Your task to perform on an android device: turn off notifications settings in the gmail app Image 0: 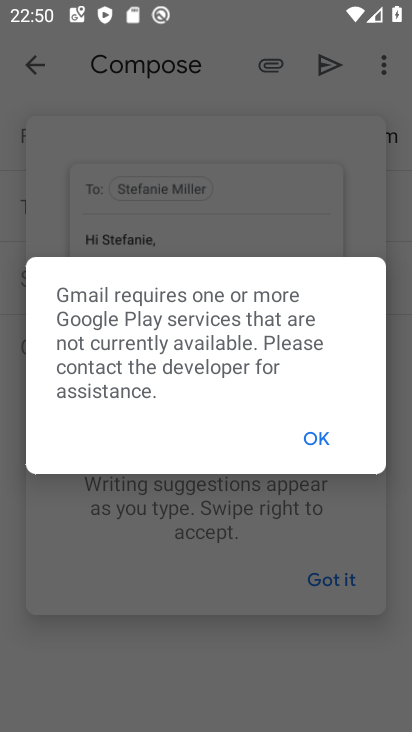
Step 0: press home button
Your task to perform on an android device: turn off notifications settings in the gmail app Image 1: 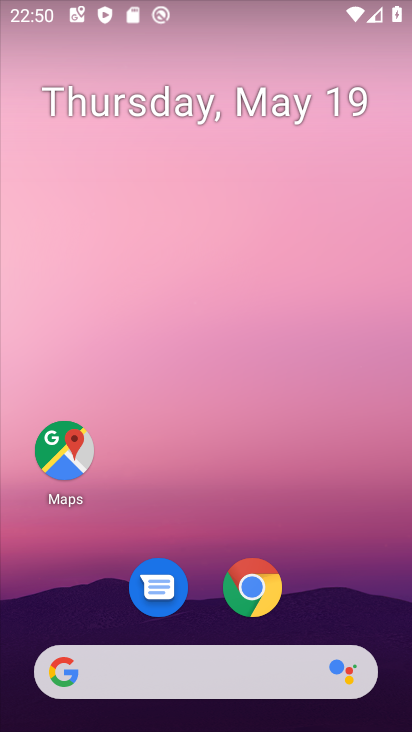
Step 1: drag from (184, 717) to (129, 125)
Your task to perform on an android device: turn off notifications settings in the gmail app Image 2: 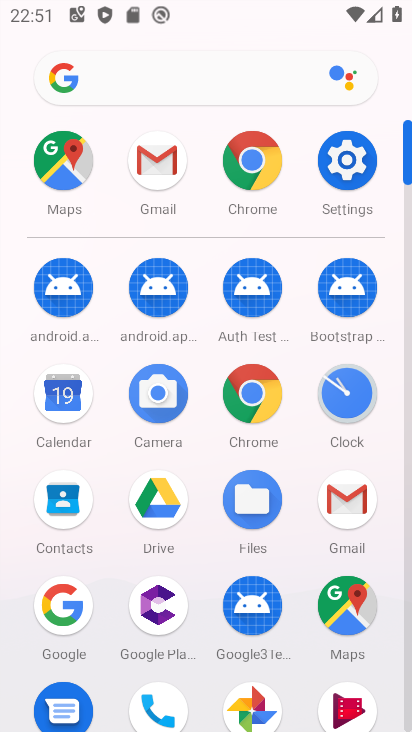
Step 2: click (162, 181)
Your task to perform on an android device: turn off notifications settings in the gmail app Image 3: 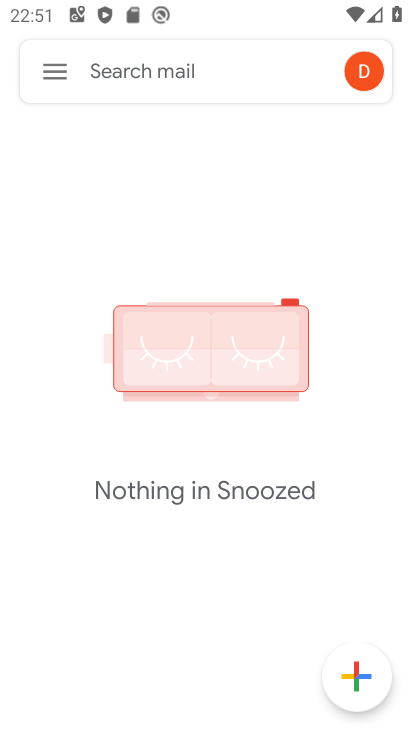
Step 3: click (57, 77)
Your task to perform on an android device: turn off notifications settings in the gmail app Image 4: 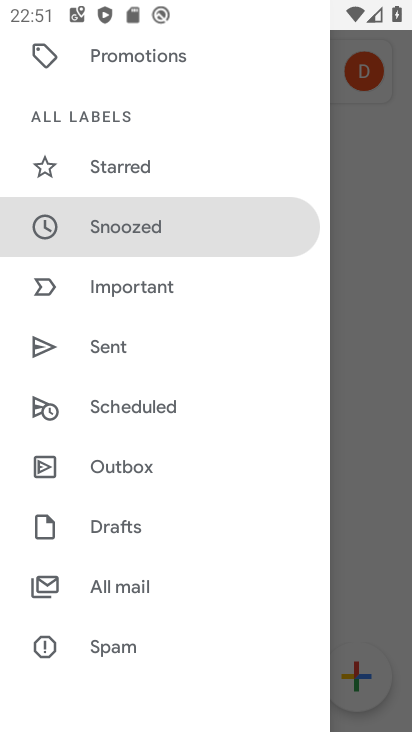
Step 4: drag from (108, 573) to (142, 299)
Your task to perform on an android device: turn off notifications settings in the gmail app Image 5: 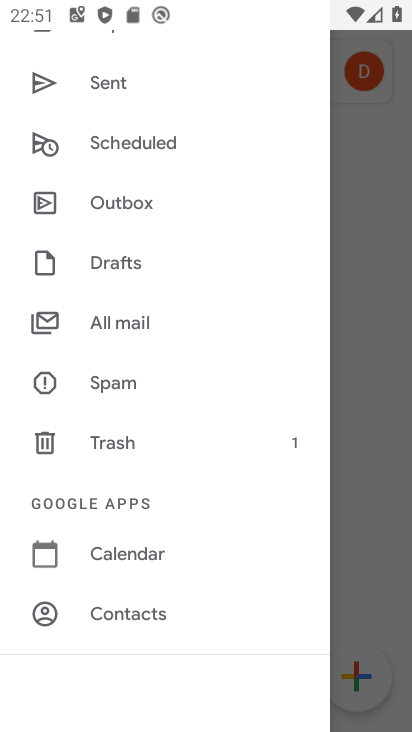
Step 5: drag from (110, 592) to (142, 440)
Your task to perform on an android device: turn off notifications settings in the gmail app Image 6: 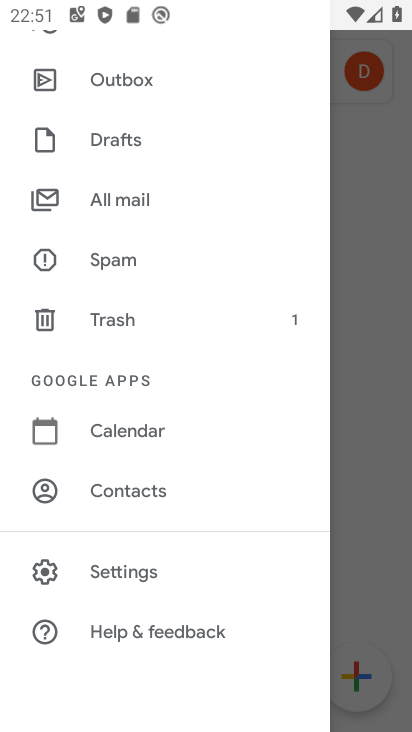
Step 6: click (98, 569)
Your task to perform on an android device: turn off notifications settings in the gmail app Image 7: 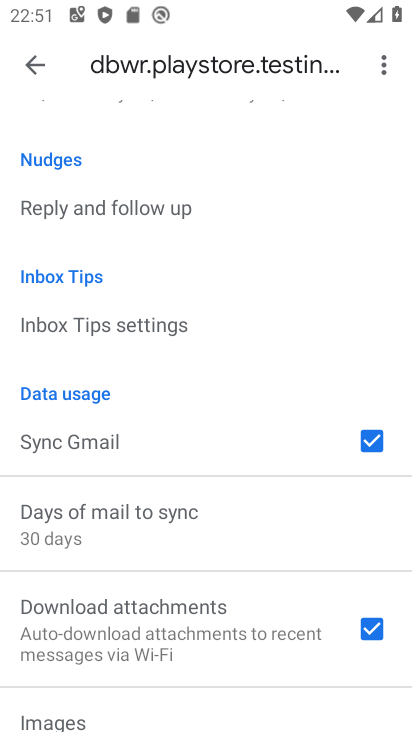
Step 7: drag from (83, 483) to (104, 272)
Your task to perform on an android device: turn off notifications settings in the gmail app Image 8: 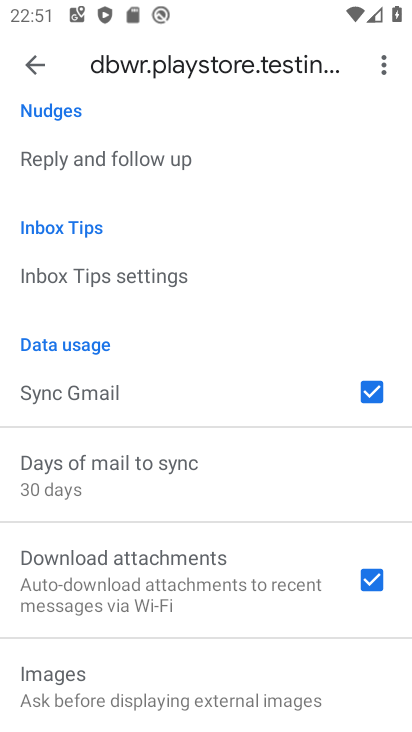
Step 8: drag from (158, 234) to (323, 730)
Your task to perform on an android device: turn off notifications settings in the gmail app Image 9: 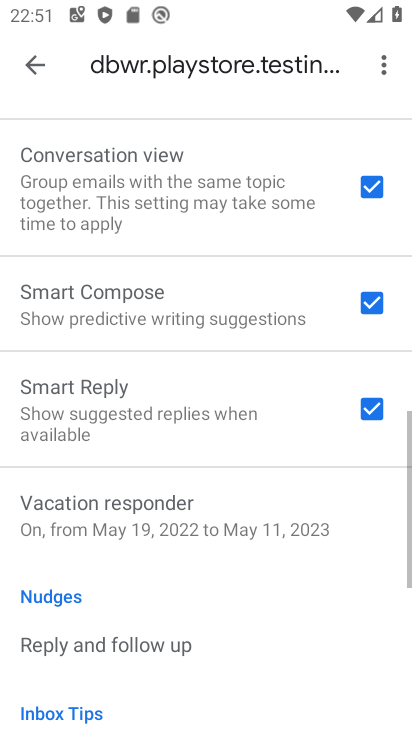
Step 9: drag from (88, 156) to (158, 562)
Your task to perform on an android device: turn off notifications settings in the gmail app Image 10: 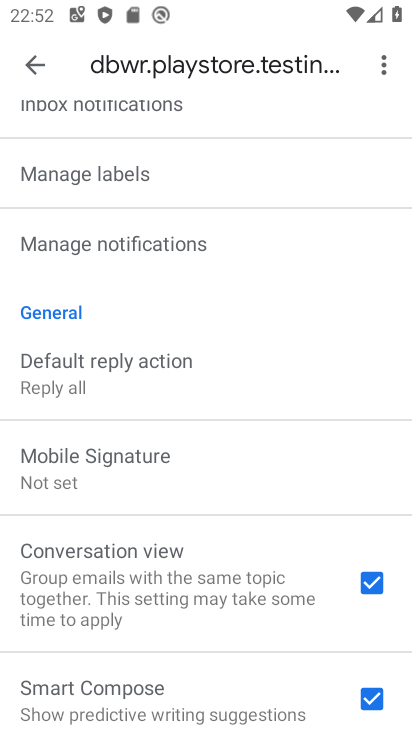
Step 10: drag from (79, 211) to (145, 410)
Your task to perform on an android device: turn off notifications settings in the gmail app Image 11: 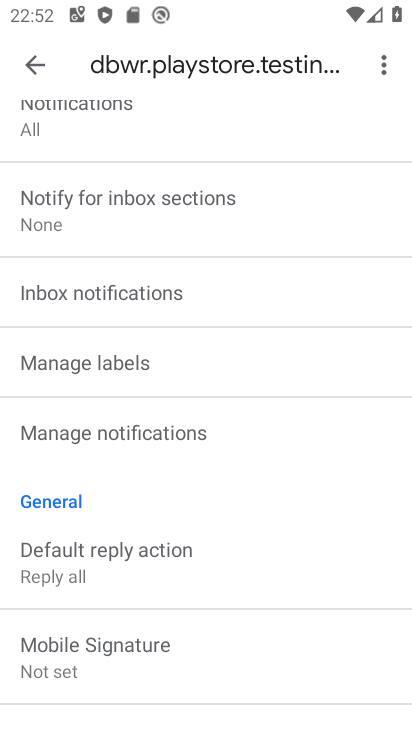
Step 11: click (95, 288)
Your task to perform on an android device: turn off notifications settings in the gmail app Image 12: 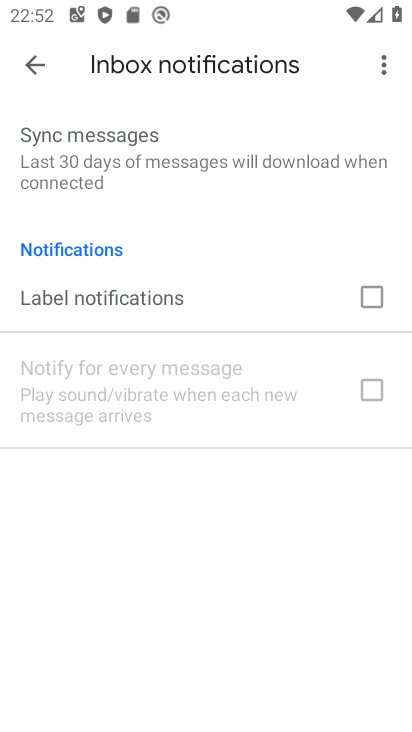
Step 12: task complete